Your task to perform on an android device: Open the downloads Image 0: 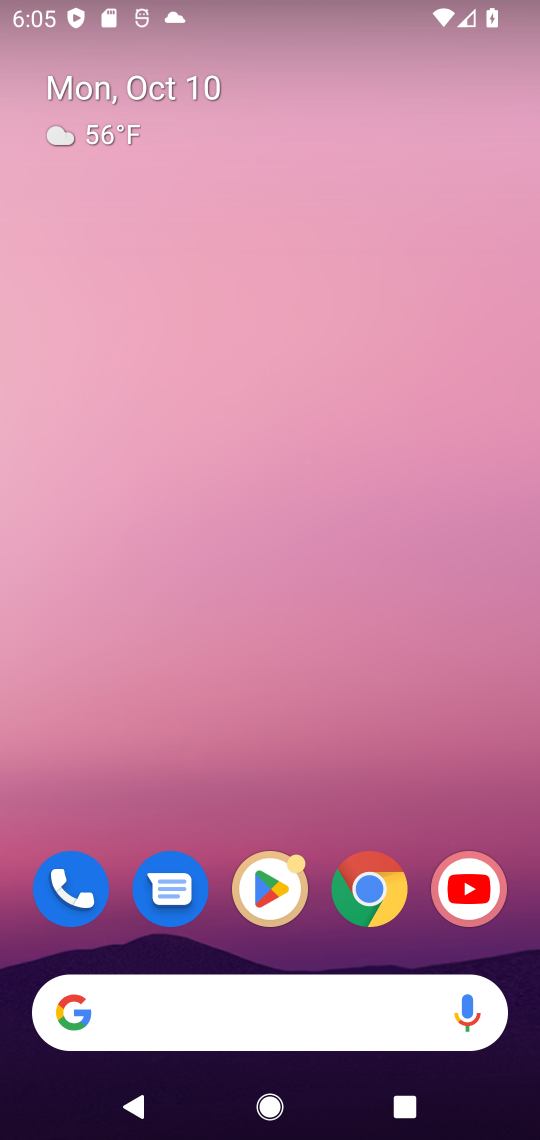
Step 0: drag from (249, 950) to (325, 146)
Your task to perform on an android device: Open the downloads Image 1: 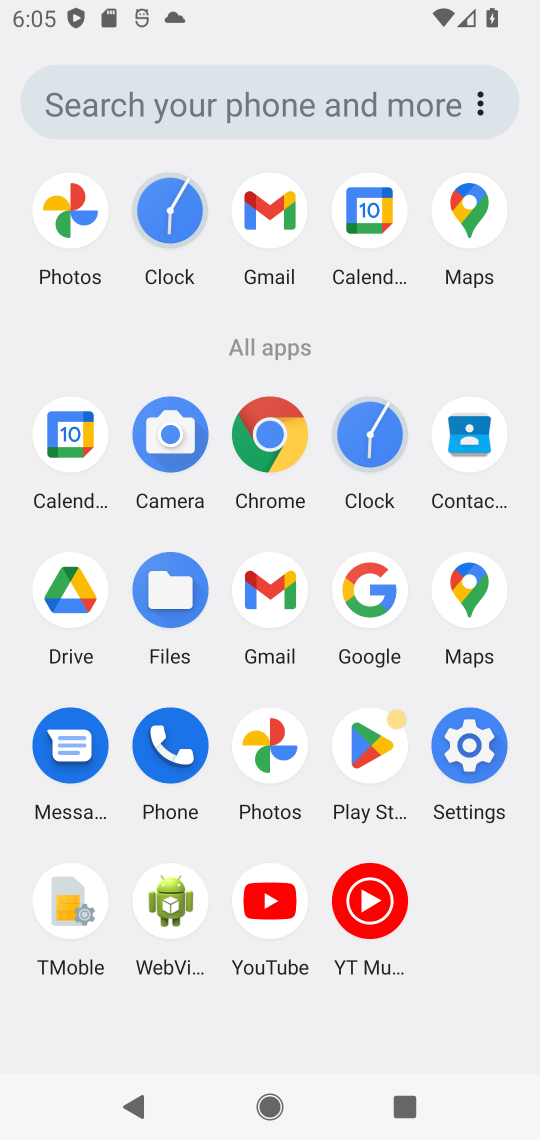
Step 1: click (167, 585)
Your task to perform on an android device: Open the downloads Image 2: 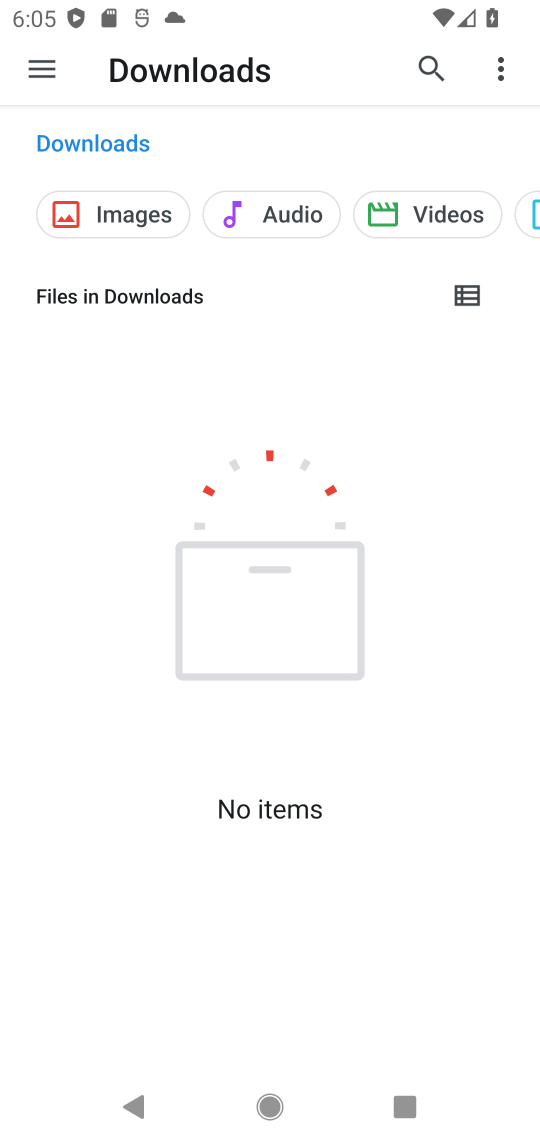
Step 2: click (479, 294)
Your task to perform on an android device: Open the downloads Image 3: 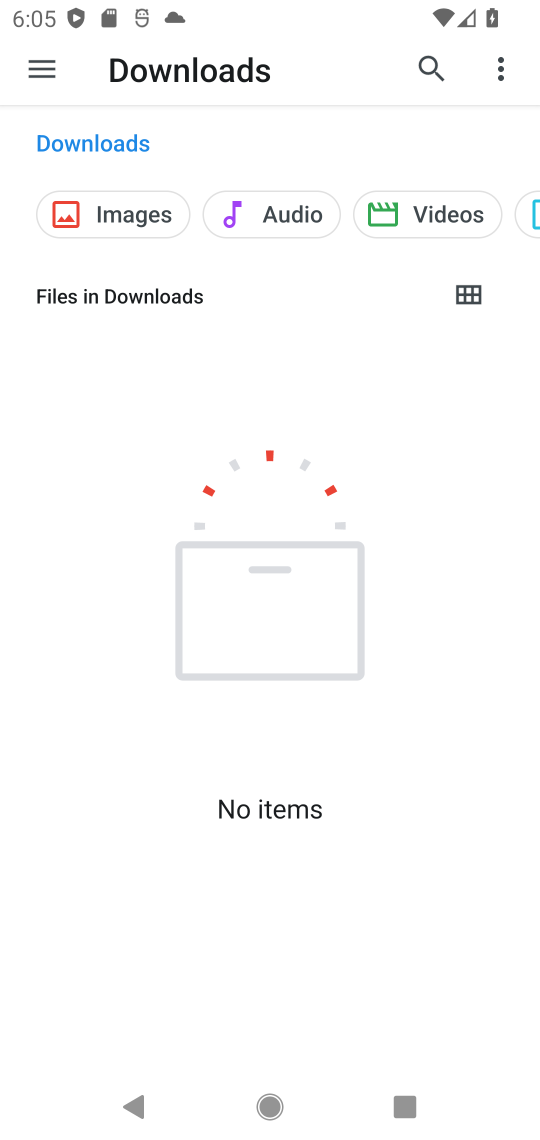
Step 3: click (26, 48)
Your task to perform on an android device: Open the downloads Image 4: 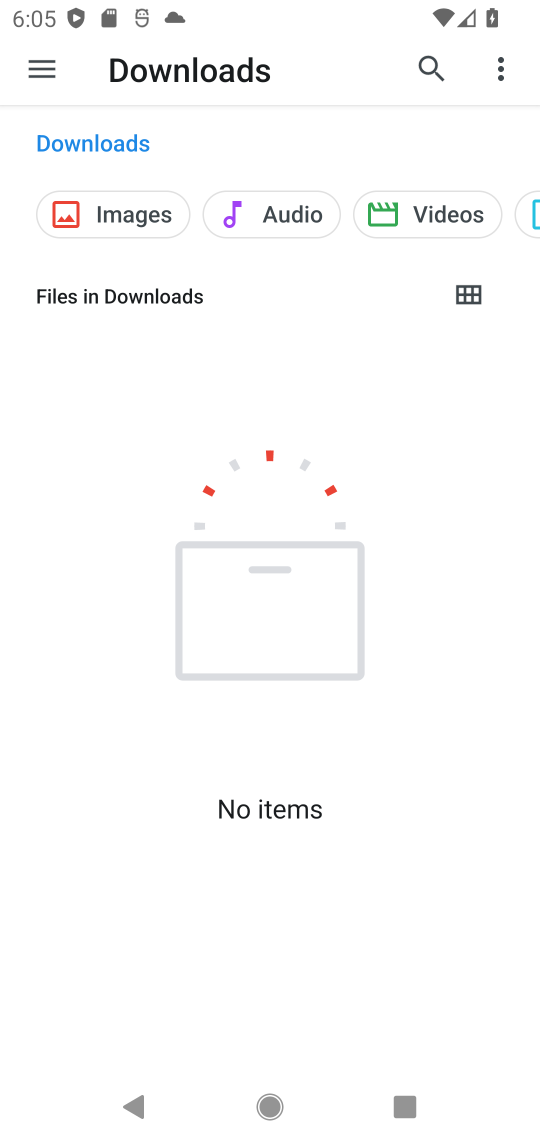
Step 4: click (127, 212)
Your task to perform on an android device: Open the downloads Image 5: 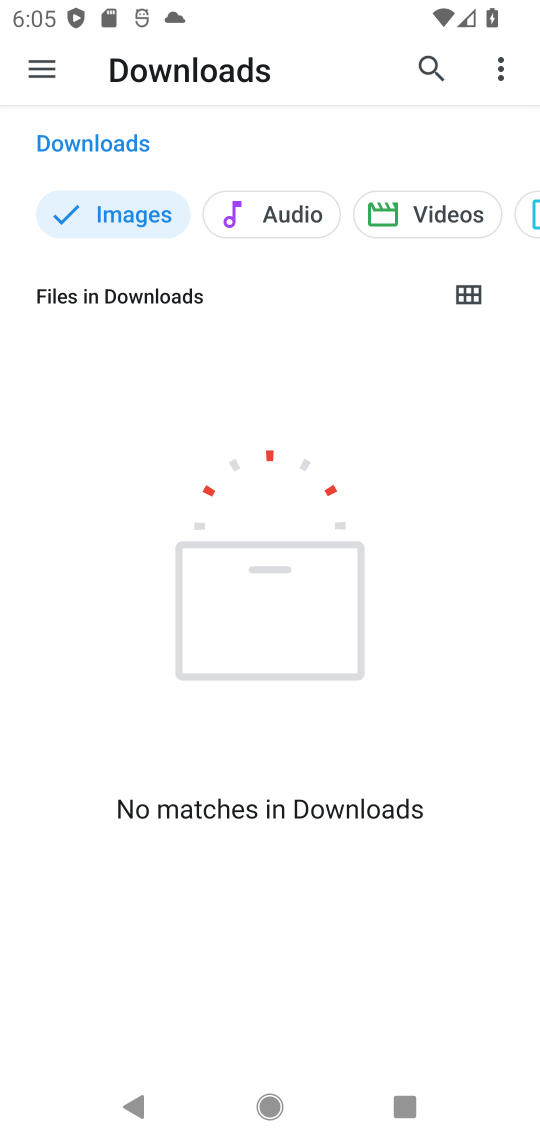
Step 5: click (127, 212)
Your task to perform on an android device: Open the downloads Image 6: 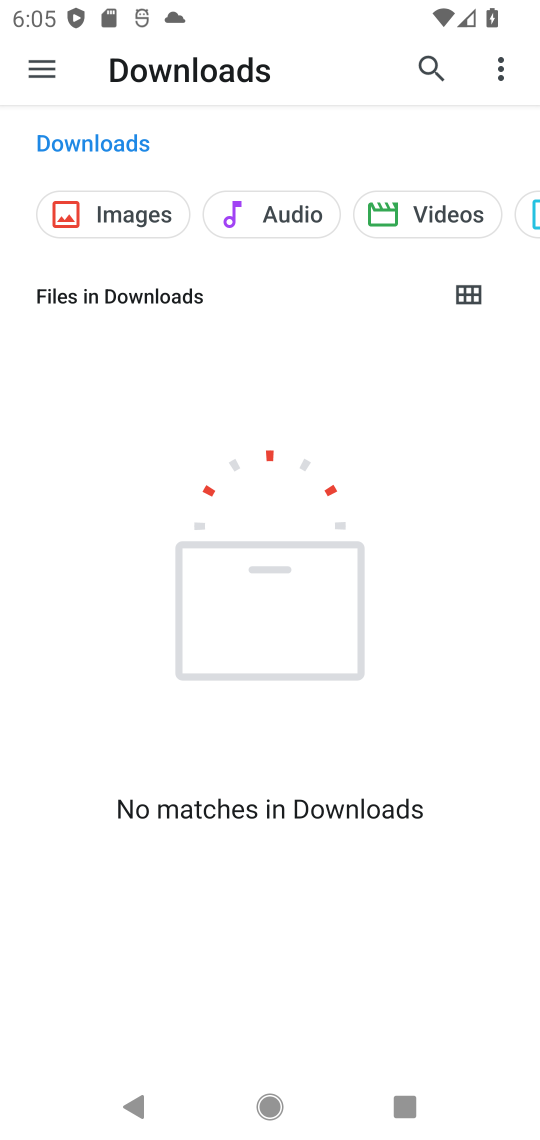
Step 6: click (256, 215)
Your task to perform on an android device: Open the downloads Image 7: 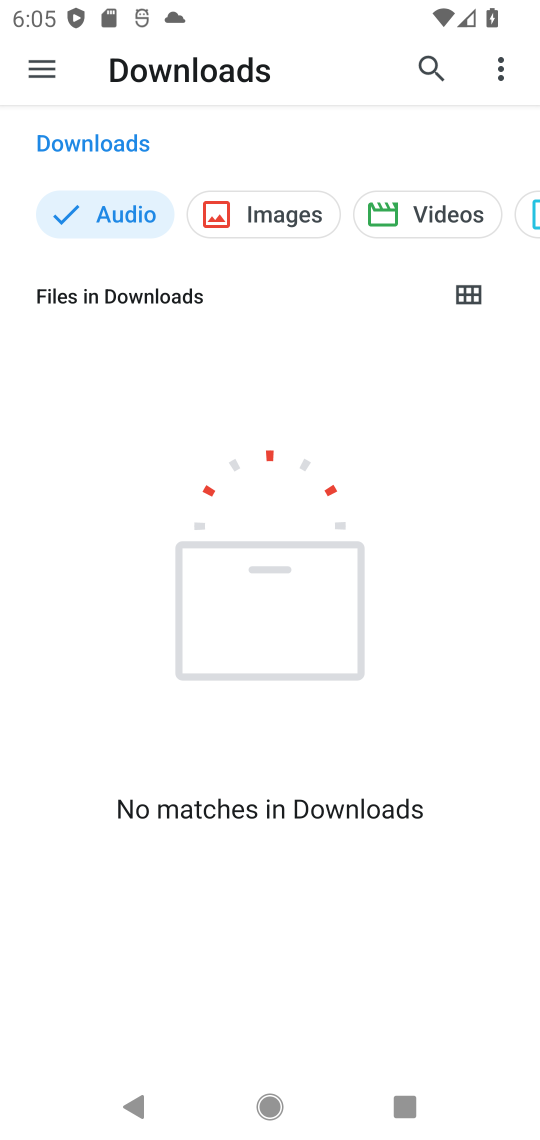
Step 7: click (342, 210)
Your task to perform on an android device: Open the downloads Image 8: 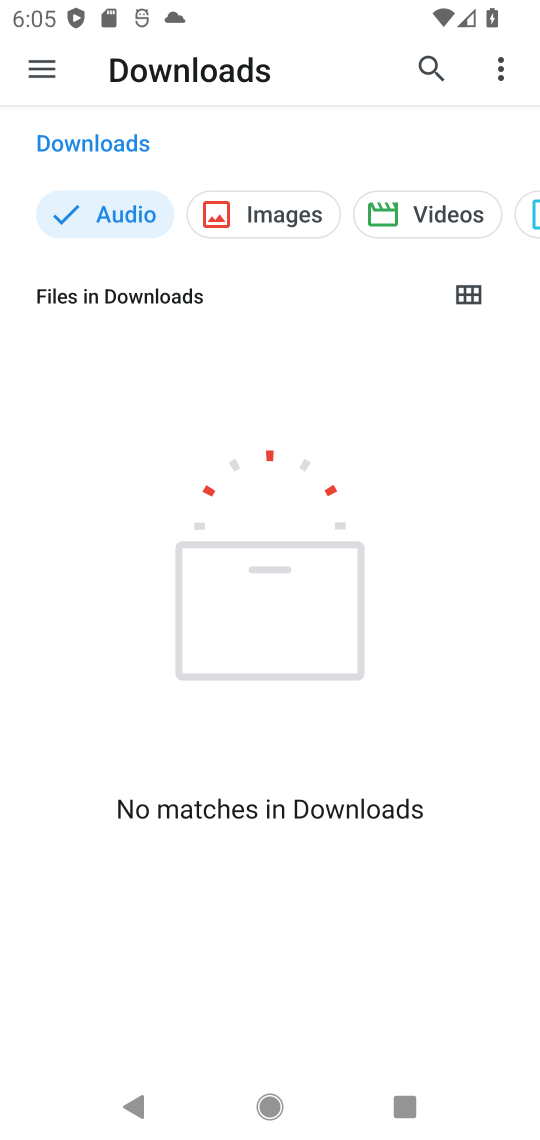
Step 8: click (403, 210)
Your task to perform on an android device: Open the downloads Image 9: 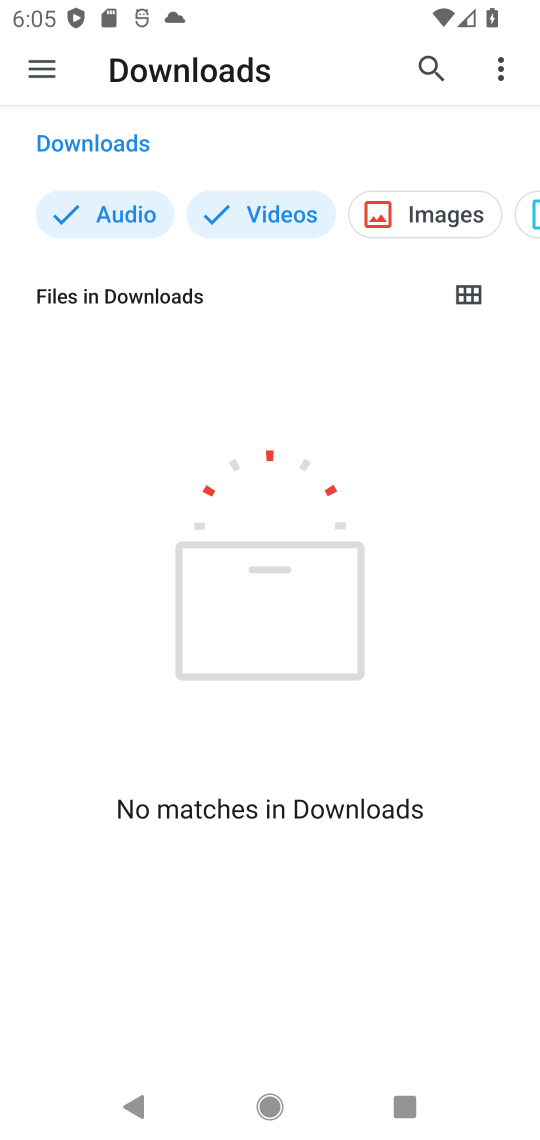
Step 9: click (403, 210)
Your task to perform on an android device: Open the downloads Image 10: 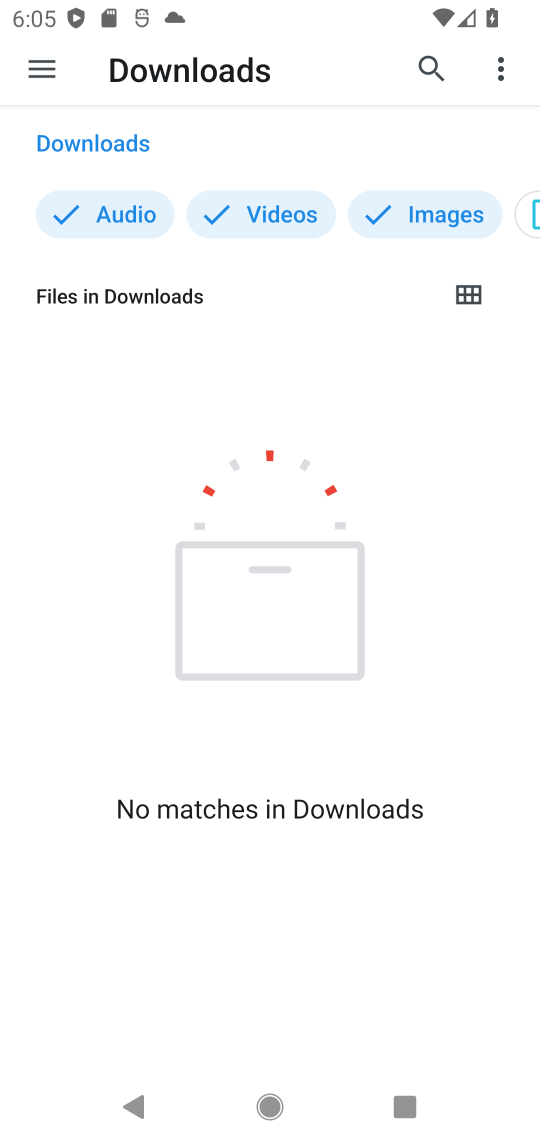
Step 10: press back button
Your task to perform on an android device: Open the downloads Image 11: 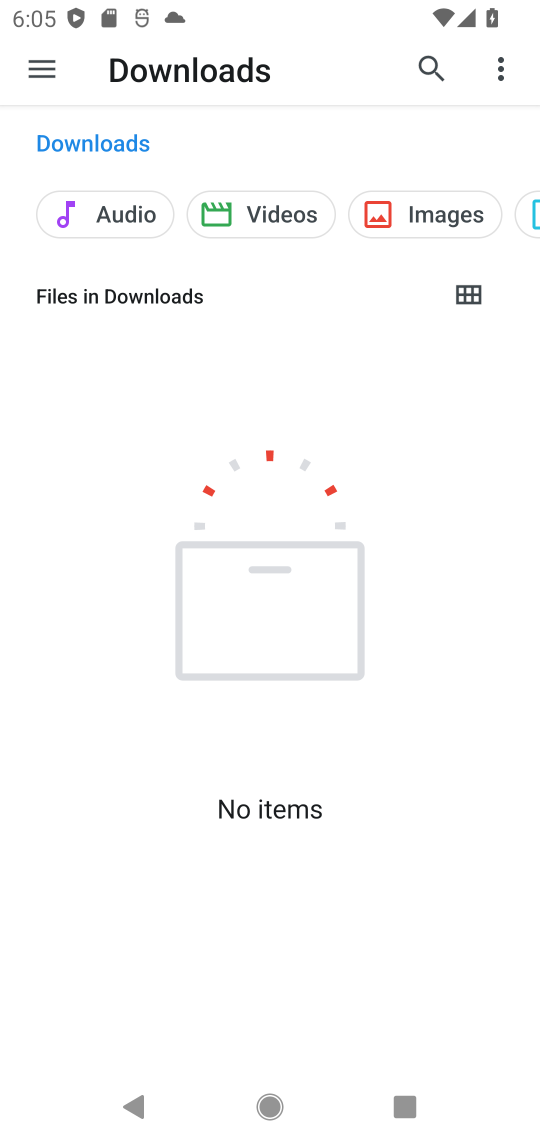
Step 11: press back button
Your task to perform on an android device: Open the downloads Image 12: 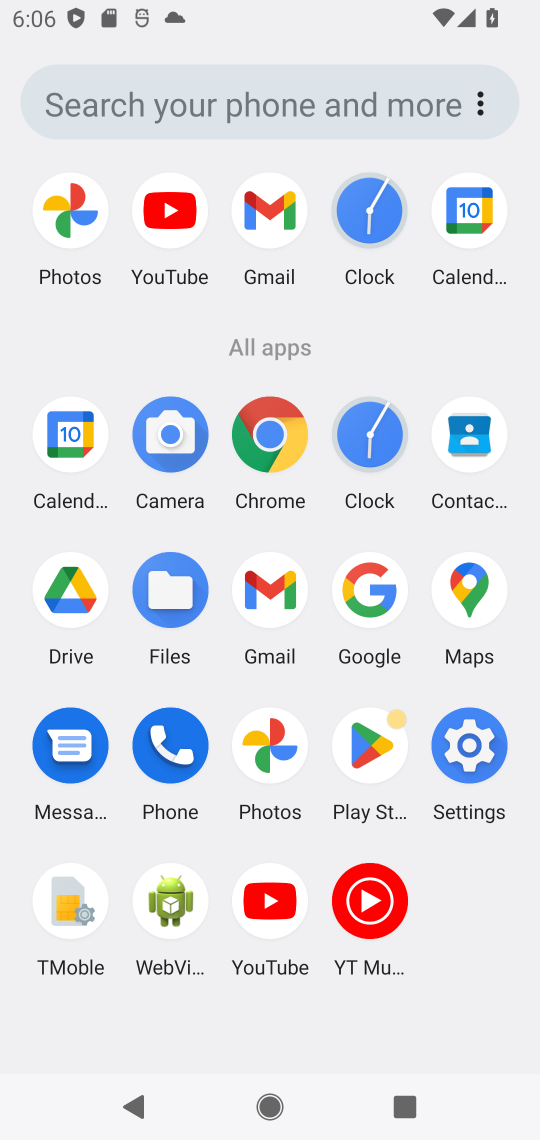
Step 12: click (243, 405)
Your task to perform on an android device: Open the downloads Image 13: 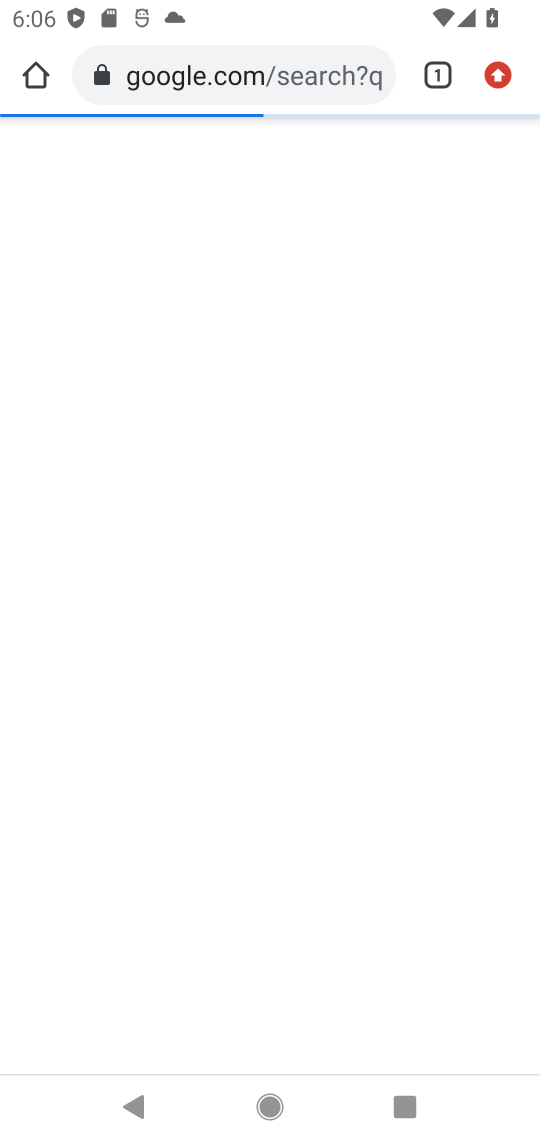
Step 13: click (502, 70)
Your task to perform on an android device: Open the downloads Image 14: 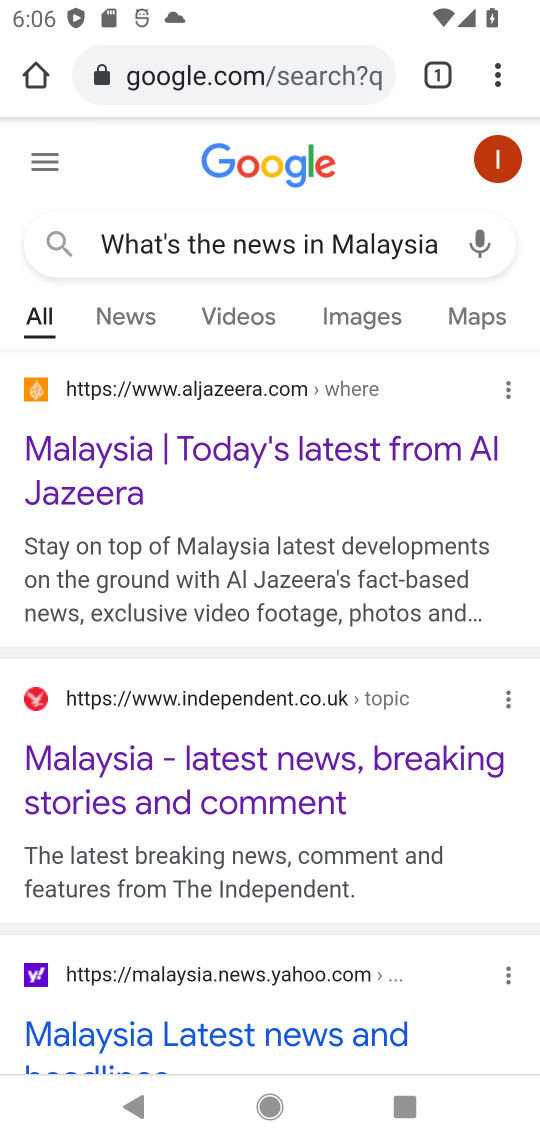
Step 14: click (498, 70)
Your task to perform on an android device: Open the downloads Image 15: 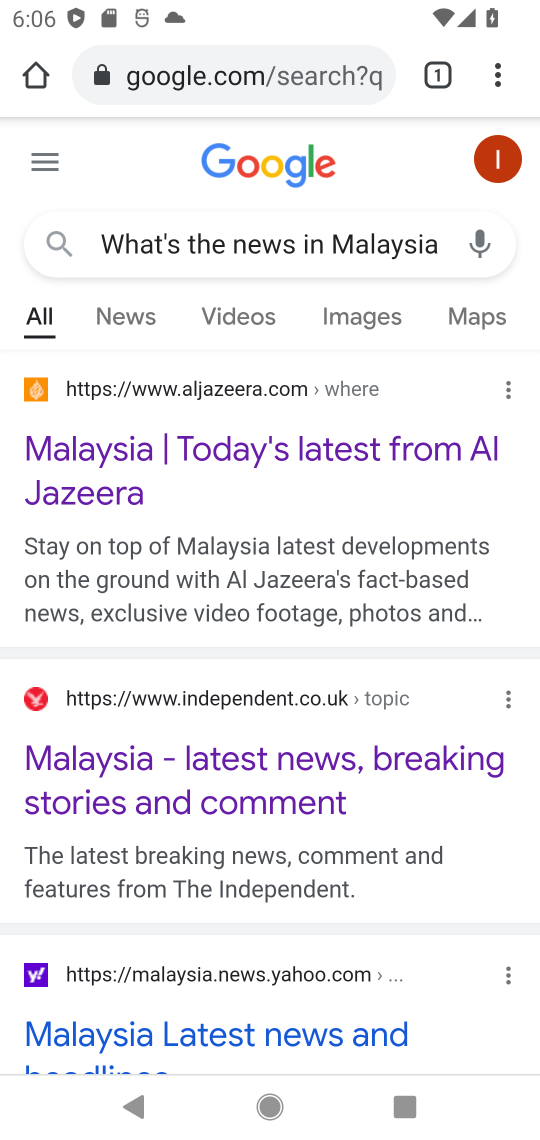
Step 15: click (498, 70)
Your task to perform on an android device: Open the downloads Image 16: 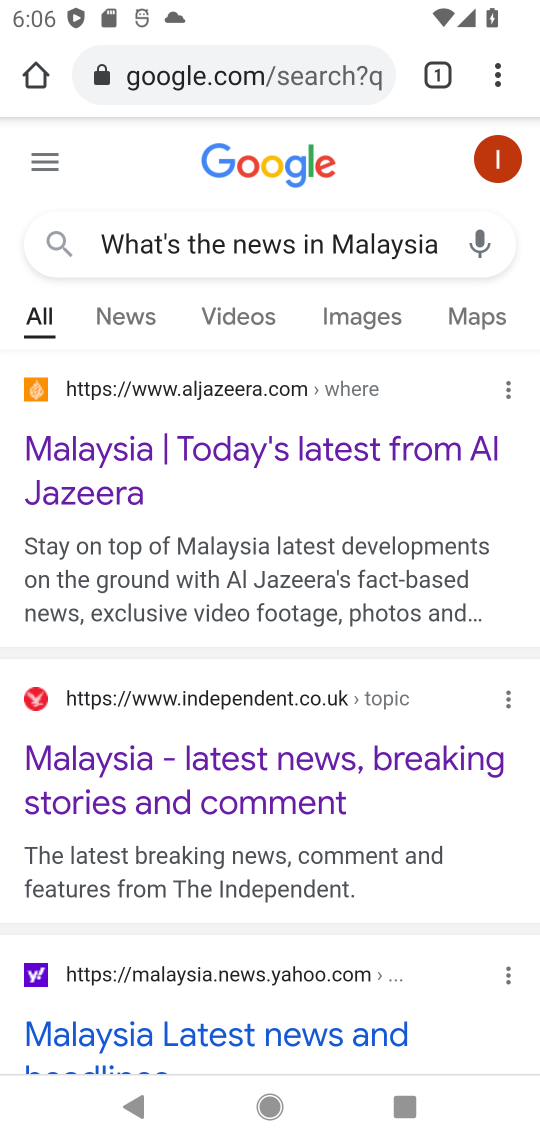
Step 16: click (498, 70)
Your task to perform on an android device: Open the downloads Image 17: 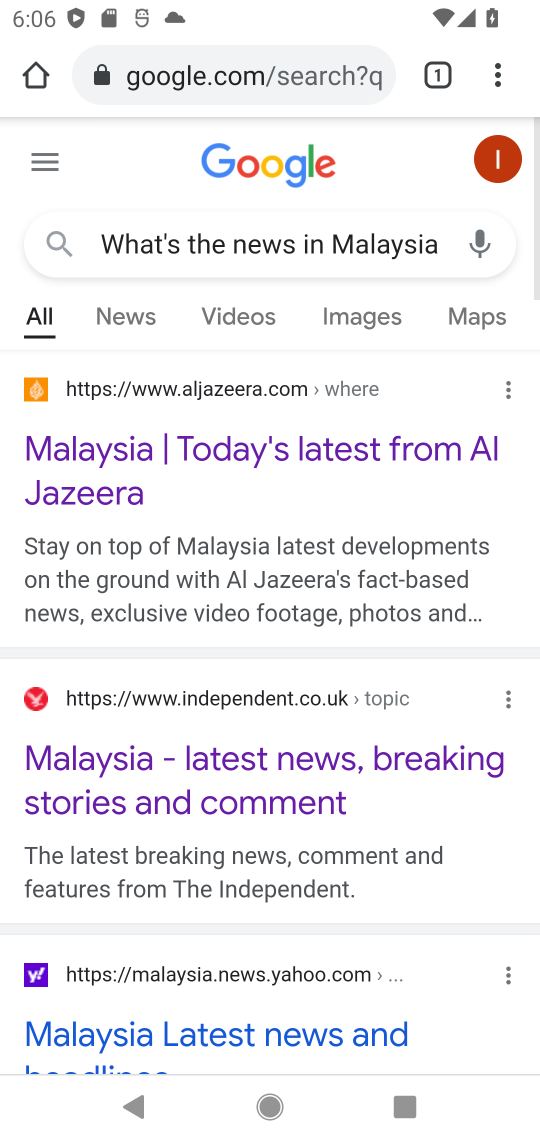
Step 17: click (498, 70)
Your task to perform on an android device: Open the downloads Image 18: 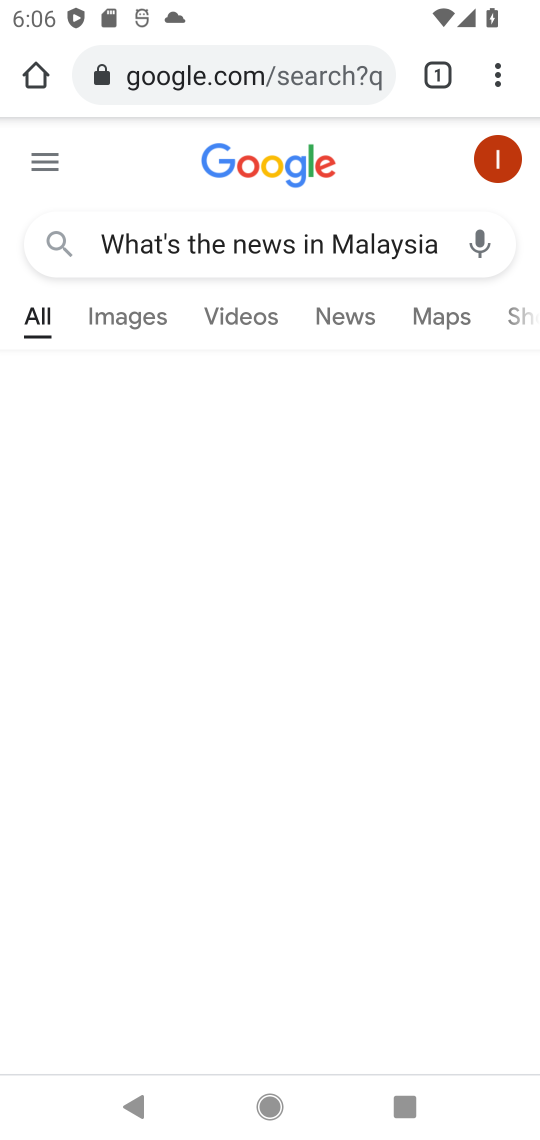
Step 18: click (498, 70)
Your task to perform on an android device: Open the downloads Image 19: 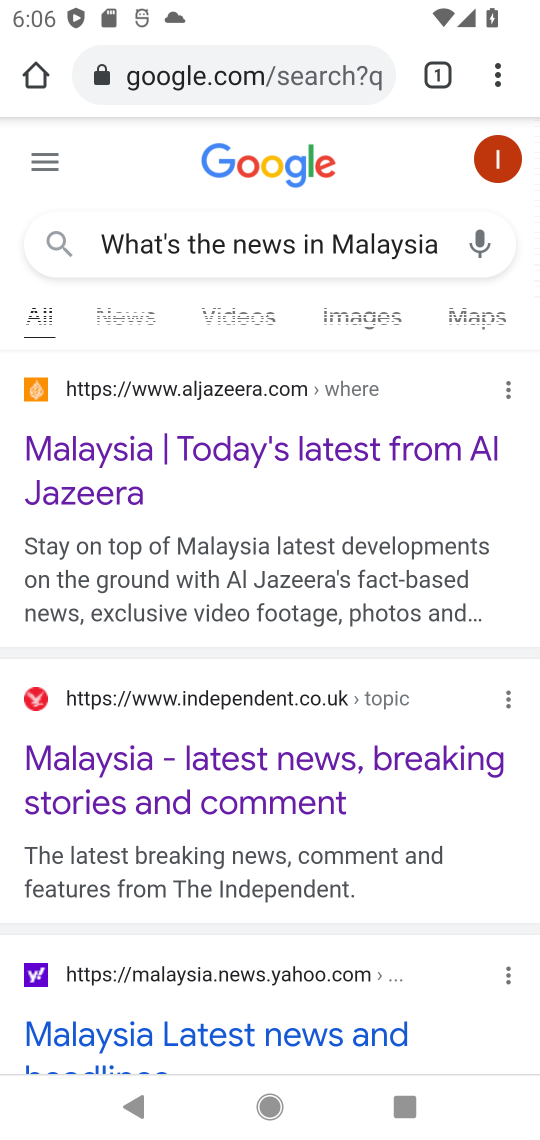
Step 19: click (22, 157)
Your task to perform on an android device: Open the downloads Image 20: 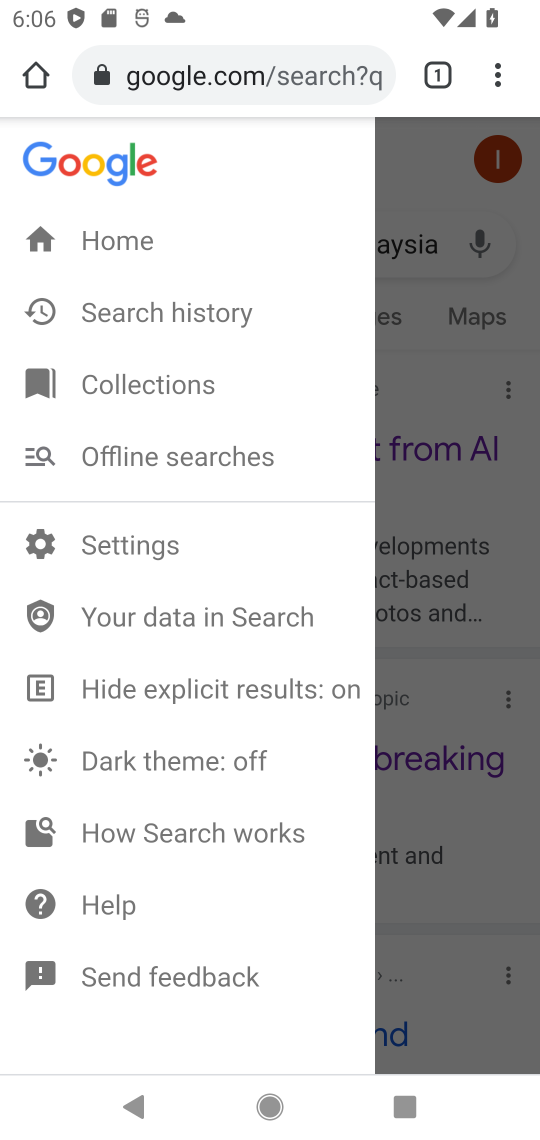
Step 20: click (213, 387)
Your task to perform on an android device: Open the downloads Image 21: 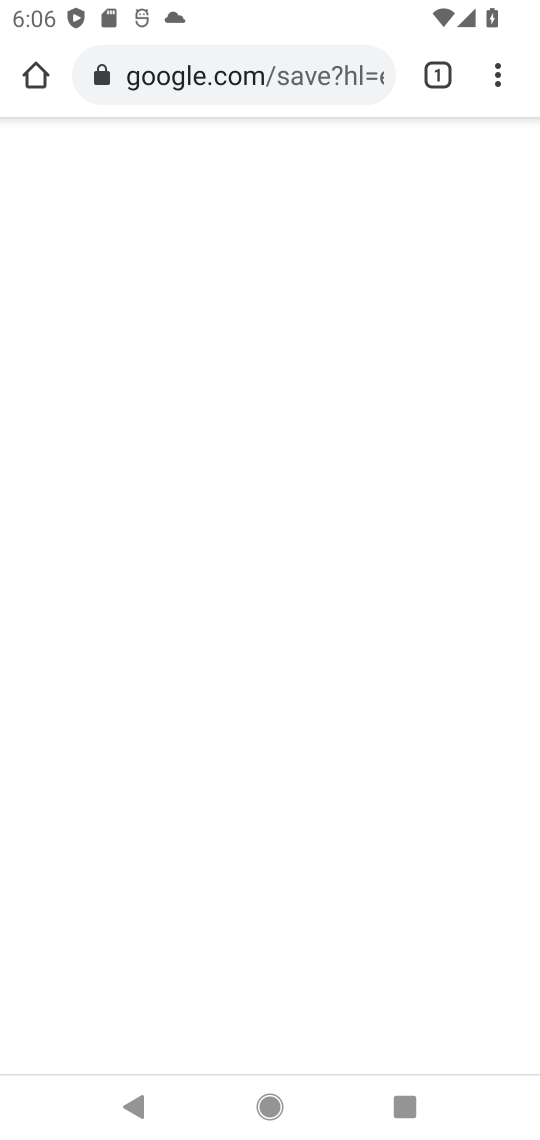
Step 21: click (504, 81)
Your task to perform on an android device: Open the downloads Image 22: 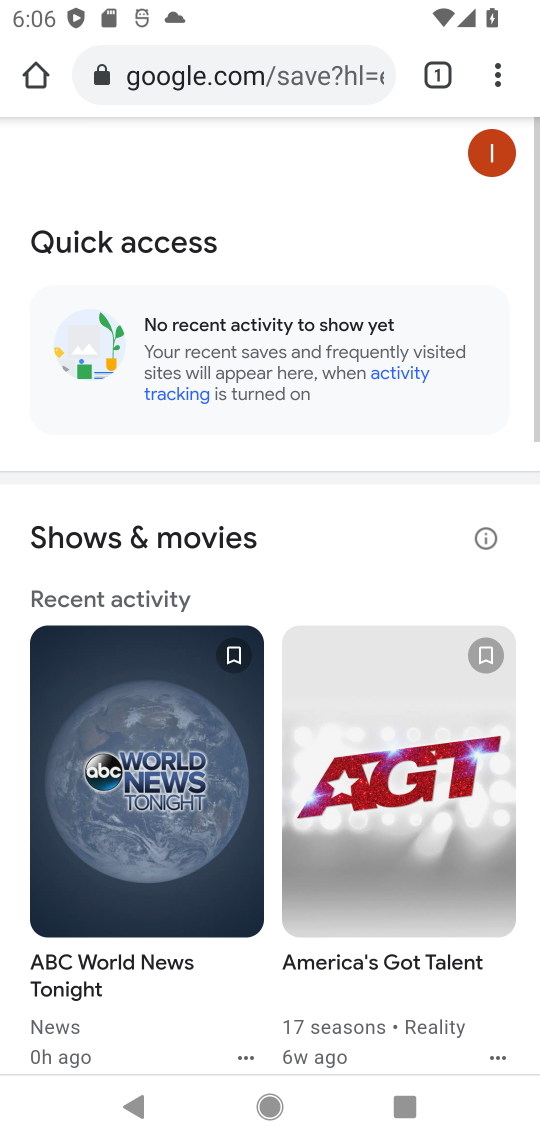
Step 22: click (504, 81)
Your task to perform on an android device: Open the downloads Image 23: 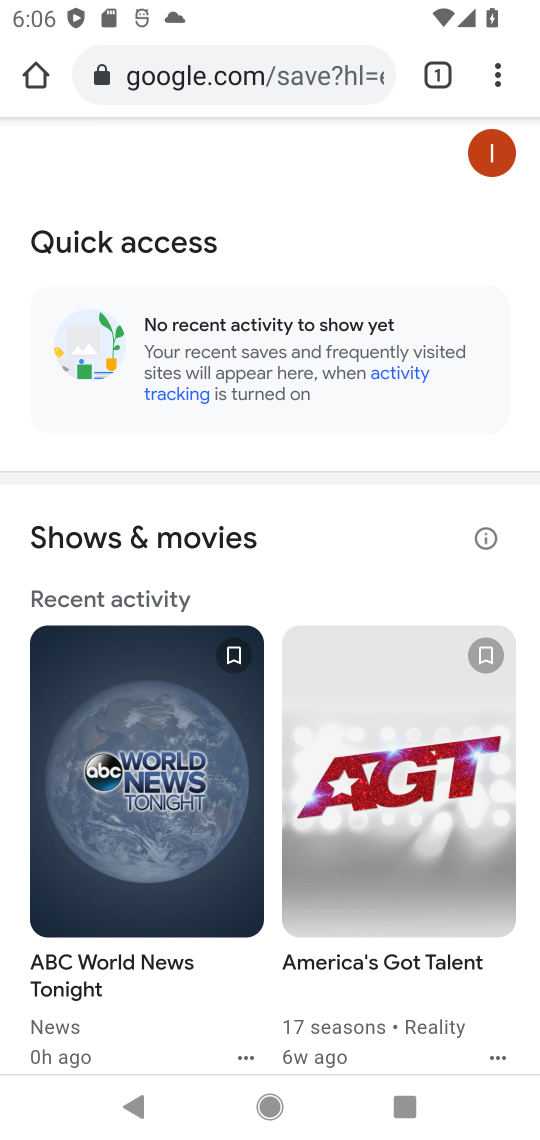
Step 23: press back button
Your task to perform on an android device: Open the downloads Image 24: 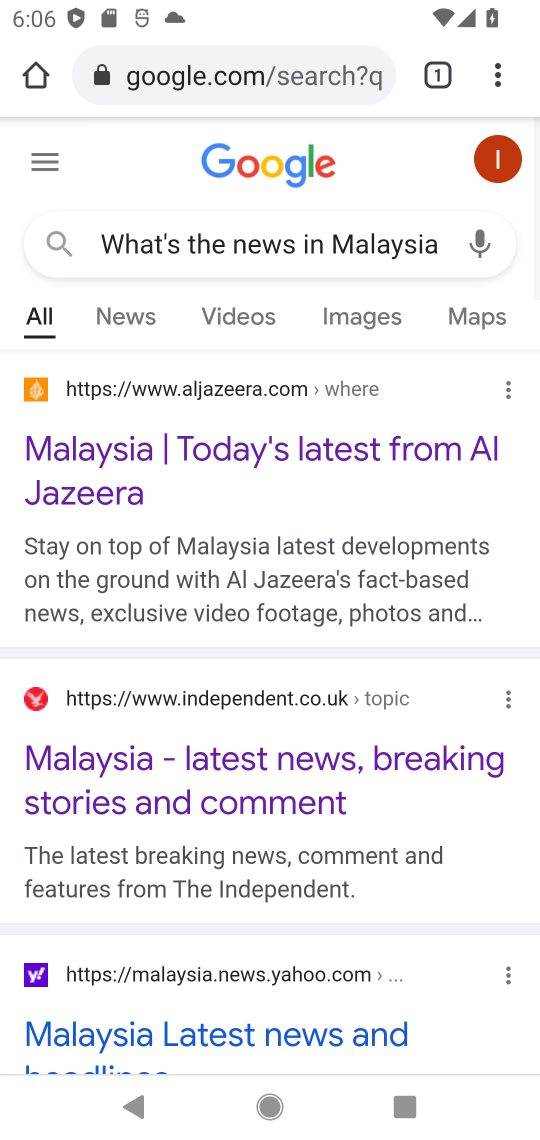
Step 24: press back button
Your task to perform on an android device: Open the downloads Image 25: 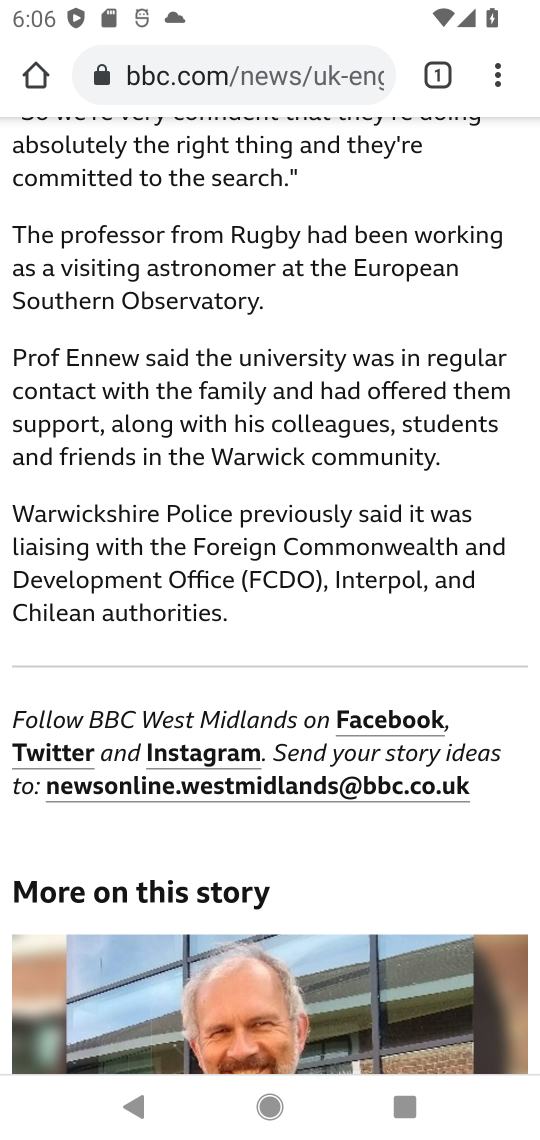
Step 25: click (490, 71)
Your task to perform on an android device: Open the downloads Image 26: 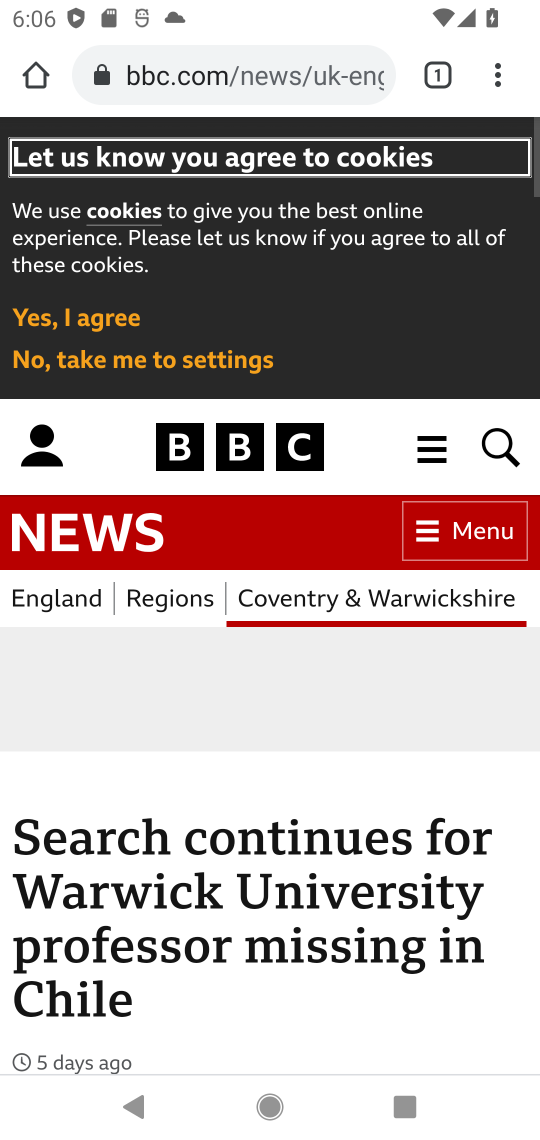
Step 26: click (504, 77)
Your task to perform on an android device: Open the downloads Image 27: 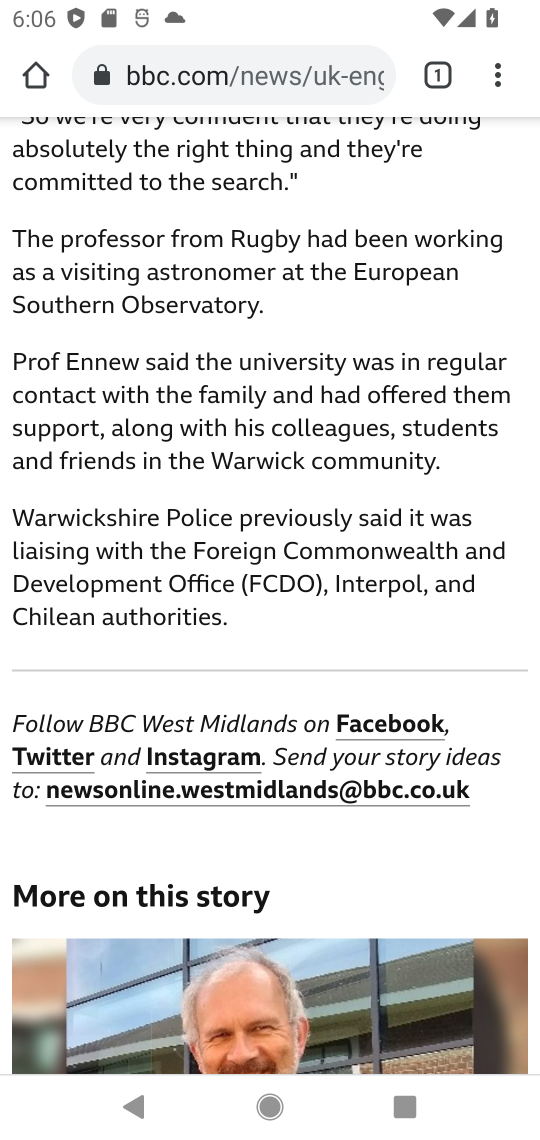
Step 27: press home button
Your task to perform on an android device: Open the downloads Image 28: 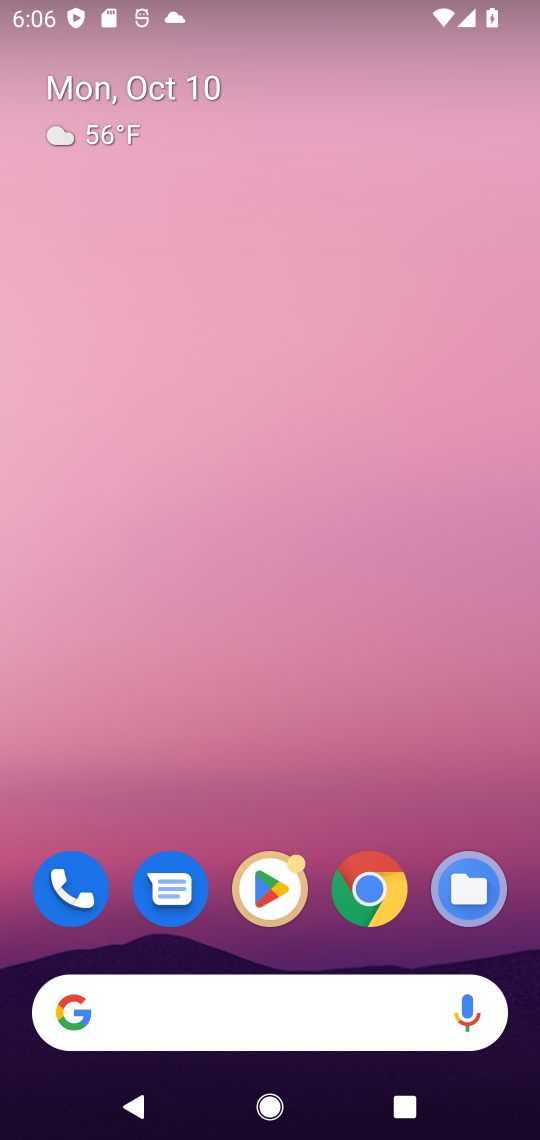
Step 28: click (439, 885)
Your task to perform on an android device: Open the downloads Image 29: 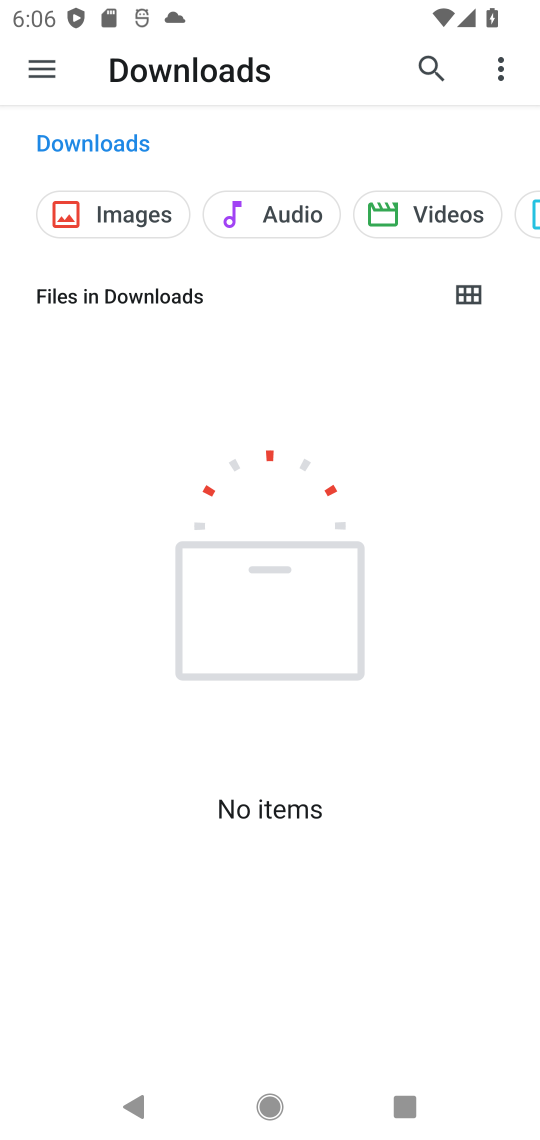
Step 29: click (51, 60)
Your task to perform on an android device: Open the downloads Image 30: 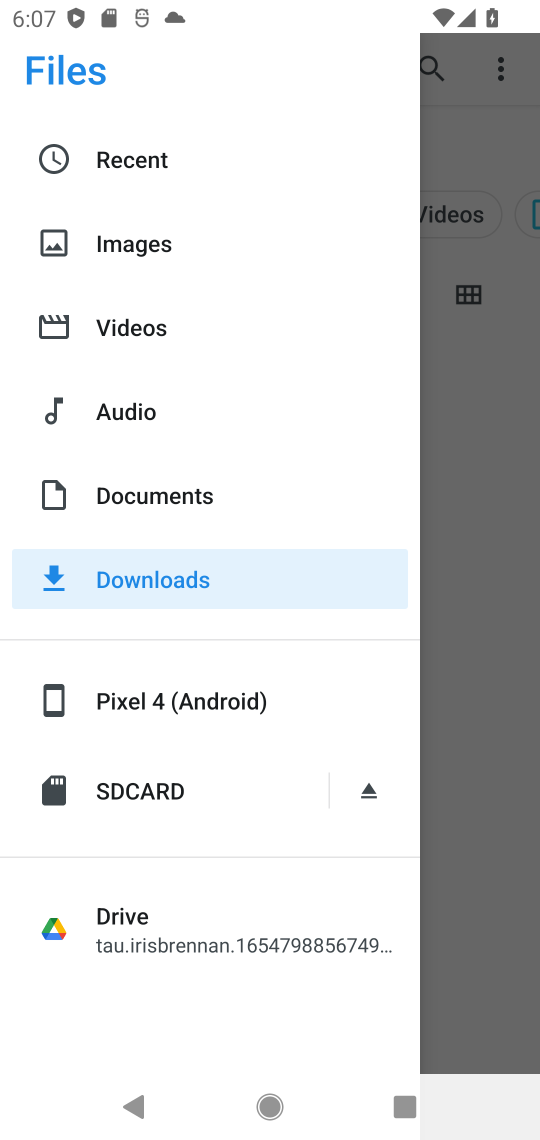
Step 30: click (189, 595)
Your task to perform on an android device: Open the downloads Image 31: 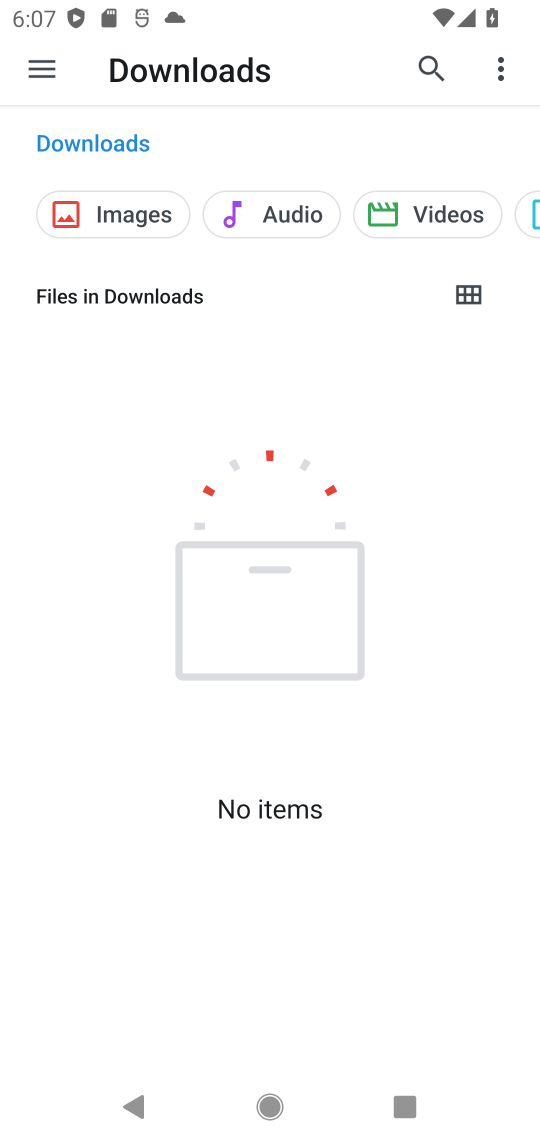
Step 31: task complete